Your task to perform on an android device: change the upload size in google photos Image 0: 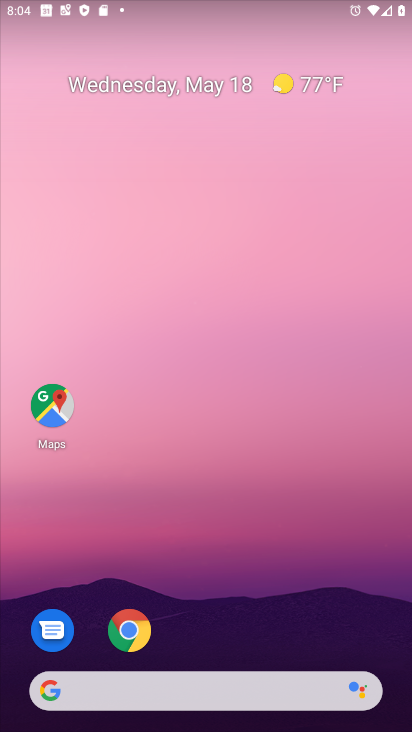
Step 0: drag from (252, 621) to (324, 110)
Your task to perform on an android device: change the upload size in google photos Image 1: 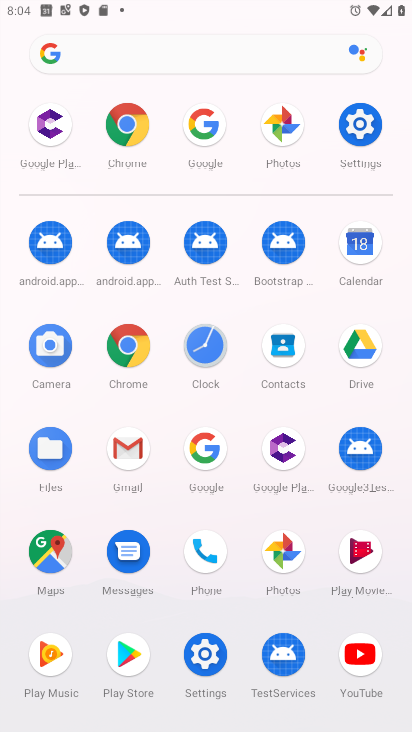
Step 1: click (287, 133)
Your task to perform on an android device: change the upload size in google photos Image 2: 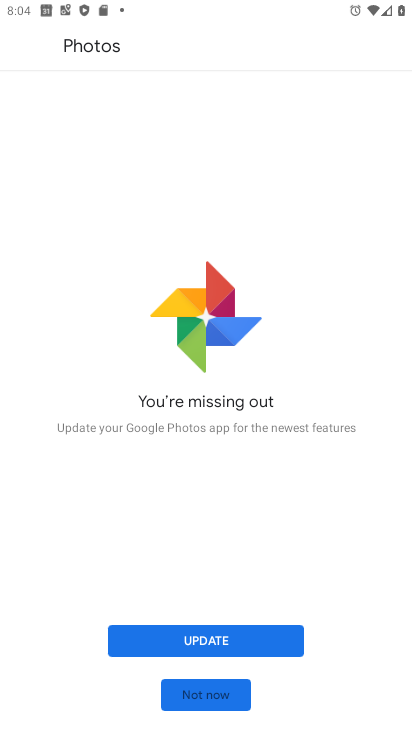
Step 2: click (214, 646)
Your task to perform on an android device: change the upload size in google photos Image 3: 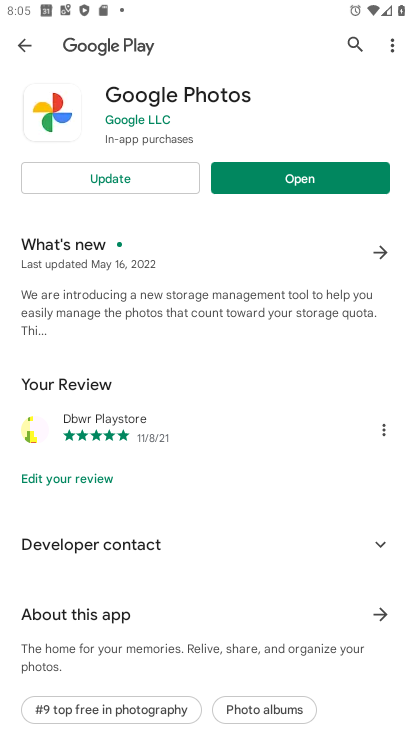
Step 3: click (134, 186)
Your task to perform on an android device: change the upload size in google photos Image 4: 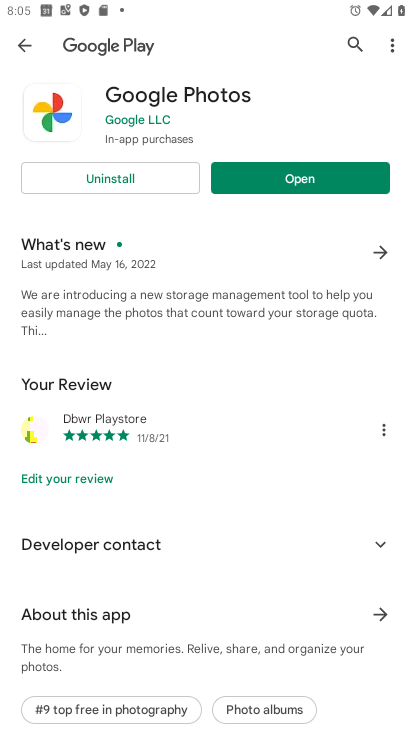
Step 4: drag from (131, 184) to (222, 431)
Your task to perform on an android device: change the upload size in google photos Image 5: 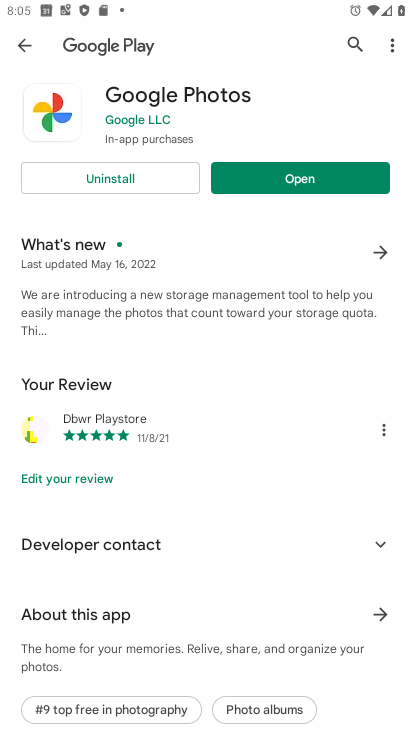
Step 5: click (286, 182)
Your task to perform on an android device: change the upload size in google photos Image 6: 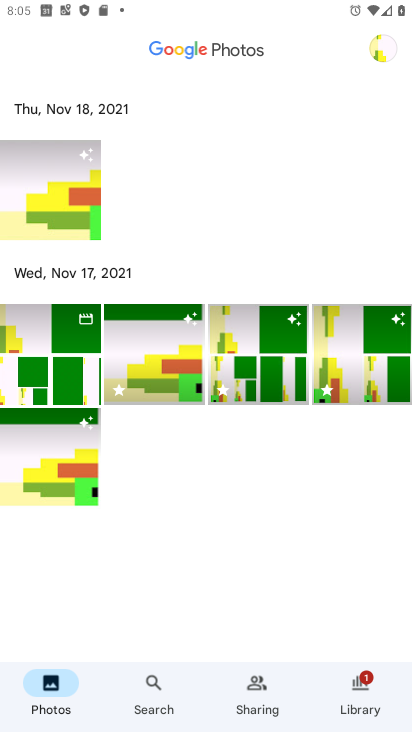
Step 6: click (381, 50)
Your task to perform on an android device: change the upload size in google photos Image 7: 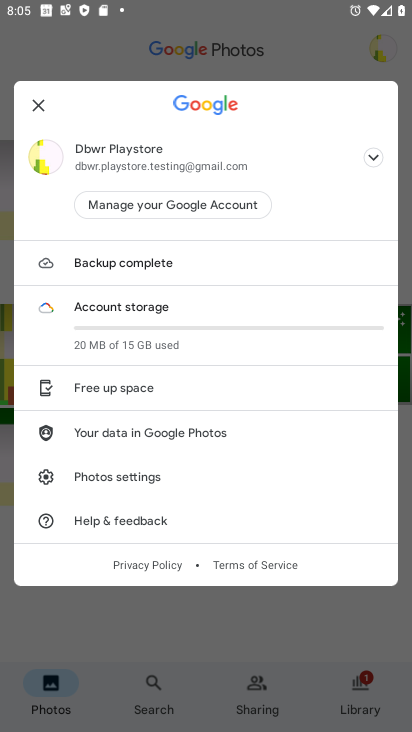
Step 7: click (129, 480)
Your task to perform on an android device: change the upload size in google photos Image 8: 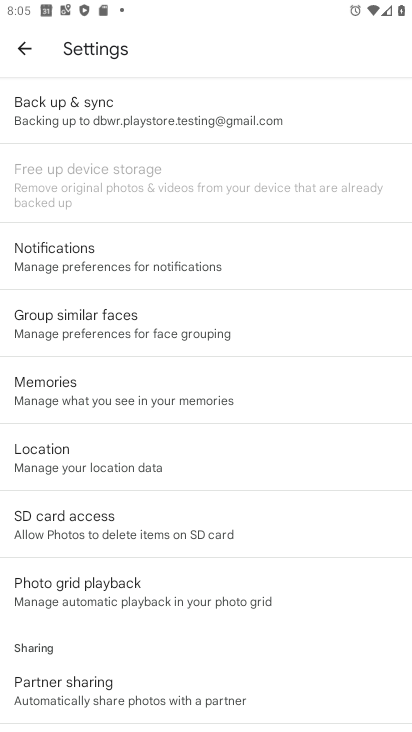
Step 8: click (115, 117)
Your task to perform on an android device: change the upload size in google photos Image 9: 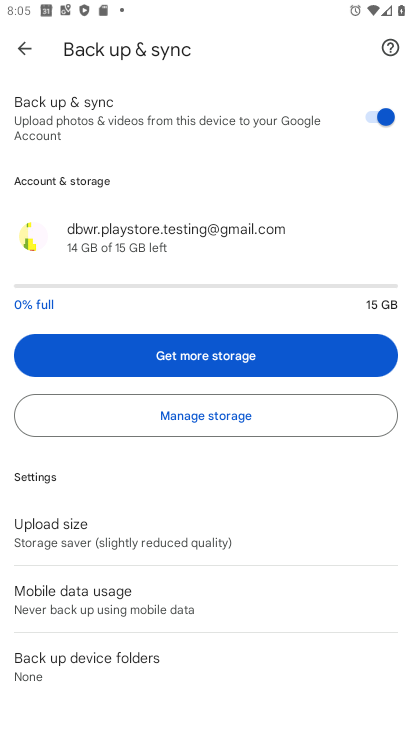
Step 9: click (135, 544)
Your task to perform on an android device: change the upload size in google photos Image 10: 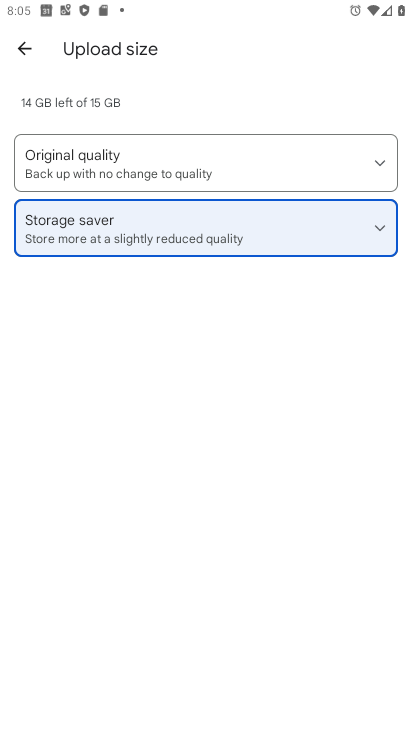
Step 10: click (121, 160)
Your task to perform on an android device: change the upload size in google photos Image 11: 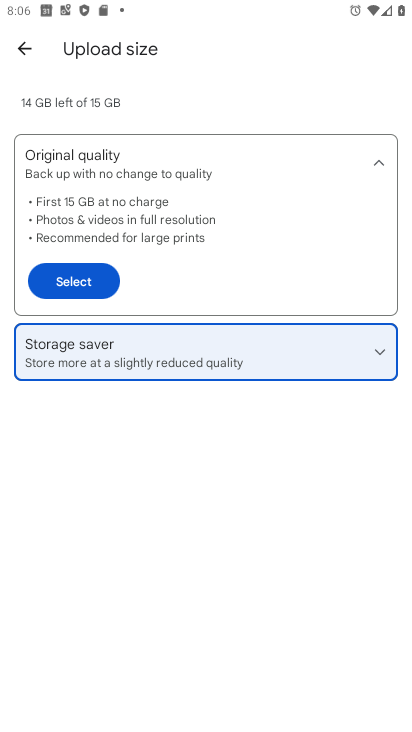
Step 11: click (78, 285)
Your task to perform on an android device: change the upload size in google photos Image 12: 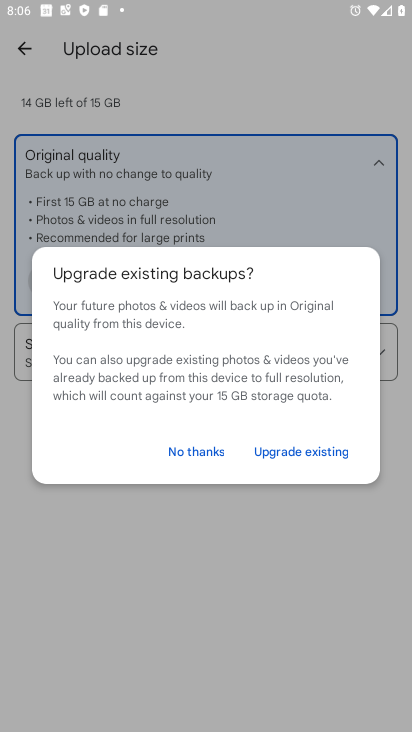
Step 12: drag from (312, 458) to (185, 446)
Your task to perform on an android device: change the upload size in google photos Image 13: 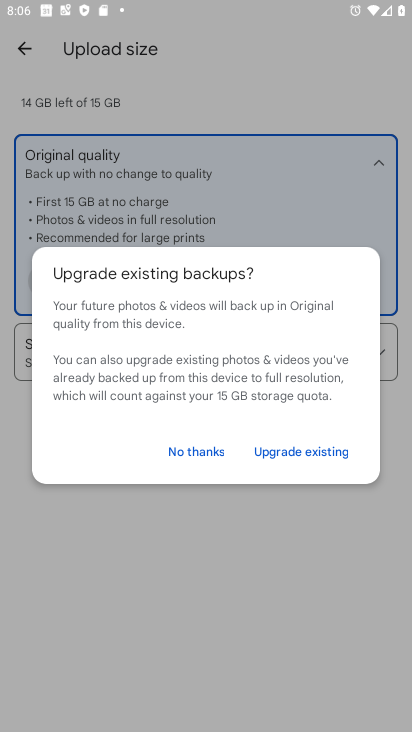
Step 13: click (189, 460)
Your task to perform on an android device: change the upload size in google photos Image 14: 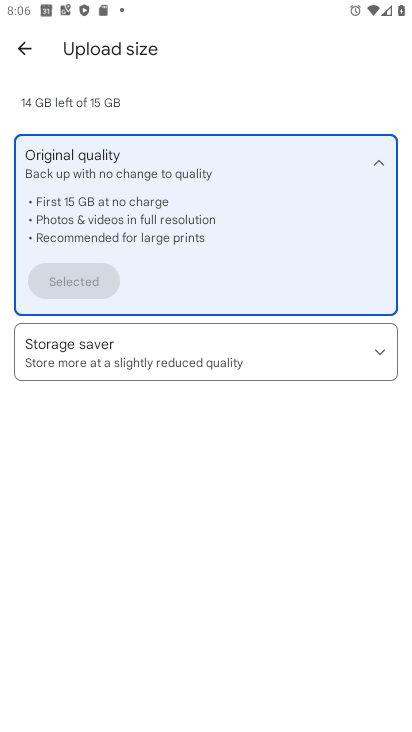
Step 14: task complete